Your task to perform on an android device: refresh tabs in the chrome app Image 0: 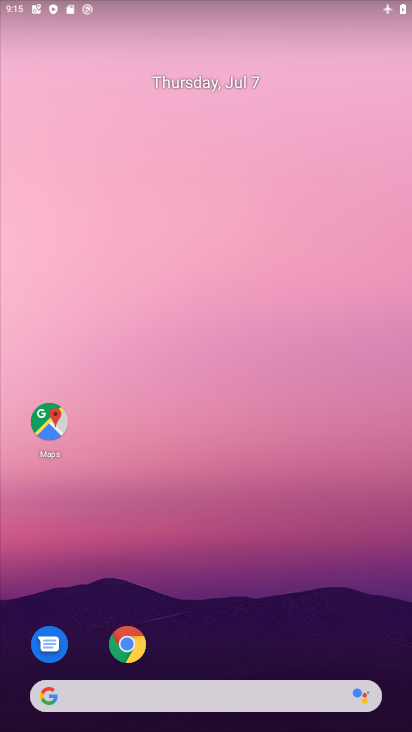
Step 0: drag from (312, 614) to (274, 101)
Your task to perform on an android device: refresh tabs in the chrome app Image 1: 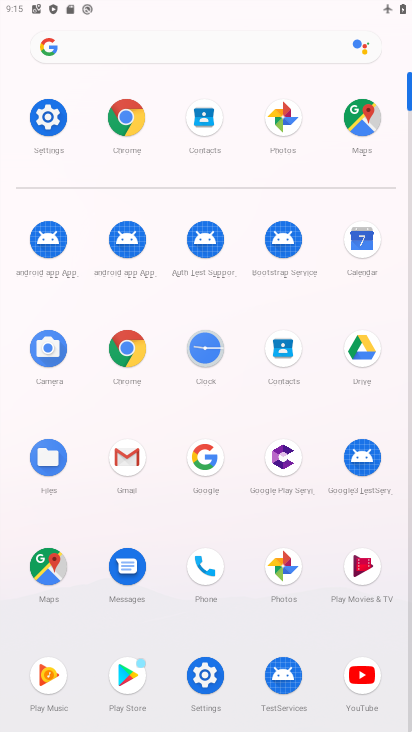
Step 1: click (134, 120)
Your task to perform on an android device: refresh tabs in the chrome app Image 2: 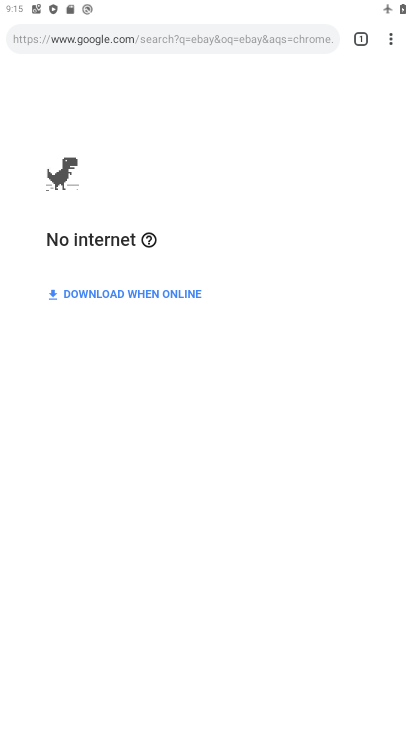
Step 2: click (390, 33)
Your task to perform on an android device: refresh tabs in the chrome app Image 3: 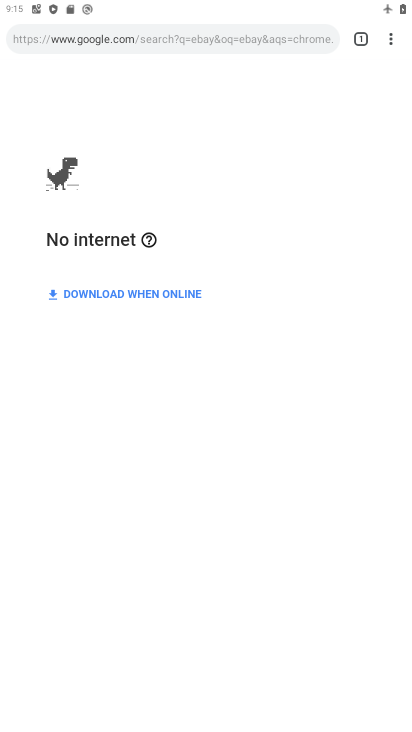
Step 3: task complete